Your task to perform on an android device: turn on data saver in the chrome app Image 0: 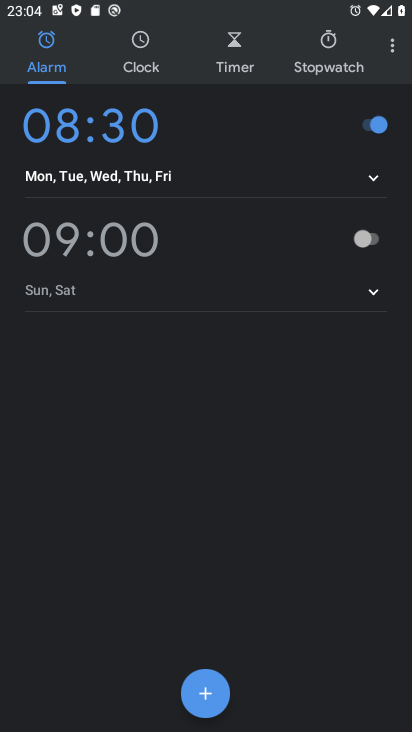
Step 0: press back button
Your task to perform on an android device: turn on data saver in the chrome app Image 1: 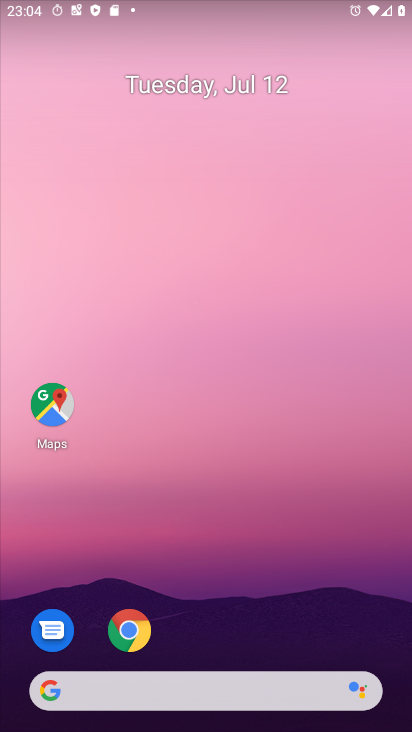
Step 1: click (133, 620)
Your task to perform on an android device: turn on data saver in the chrome app Image 2: 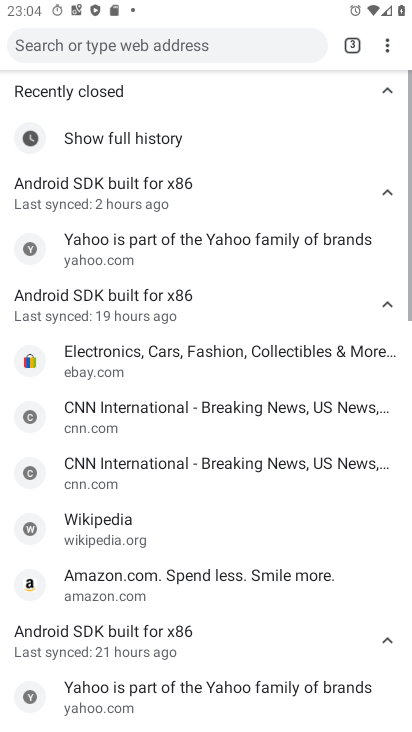
Step 2: drag from (386, 41) to (246, 386)
Your task to perform on an android device: turn on data saver in the chrome app Image 3: 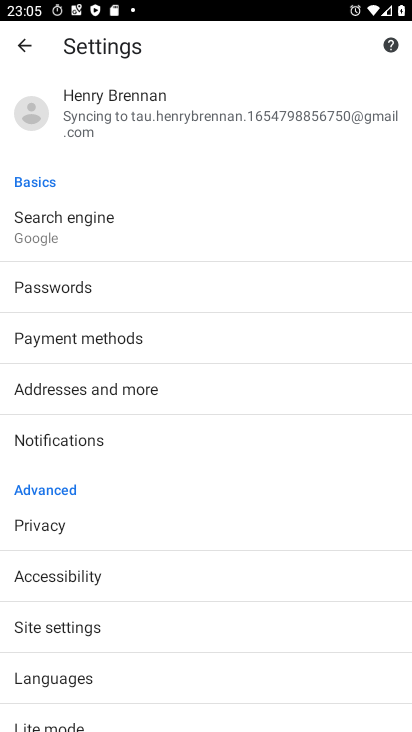
Step 3: click (53, 720)
Your task to perform on an android device: turn on data saver in the chrome app Image 4: 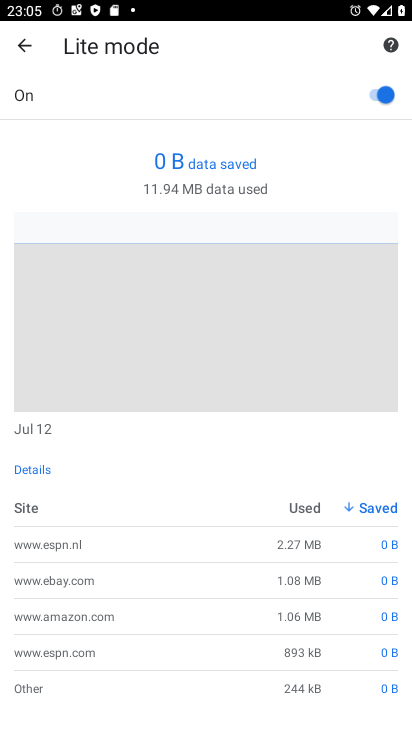
Step 4: task complete